Your task to perform on an android device: set default search engine in the chrome app Image 0: 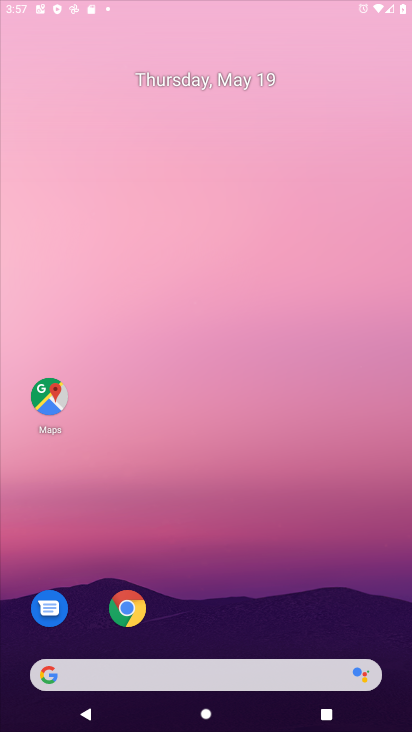
Step 0: drag from (258, 583) to (204, 234)
Your task to perform on an android device: set default search engine in the chrome app Image 1: 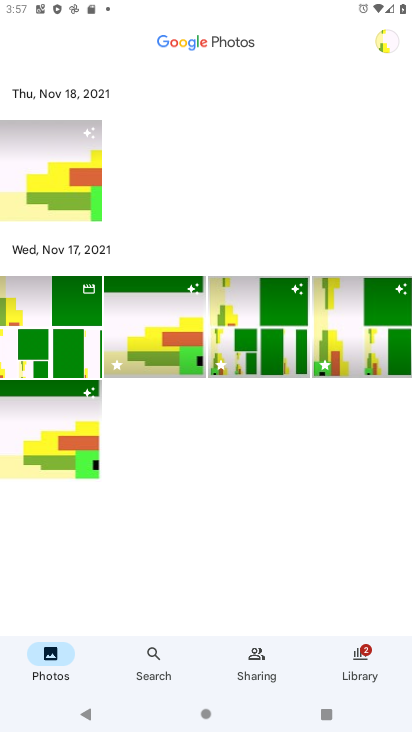
Step 1: press home button
Your task to perform on an android device: set default search engine in the chrome app Image 2: 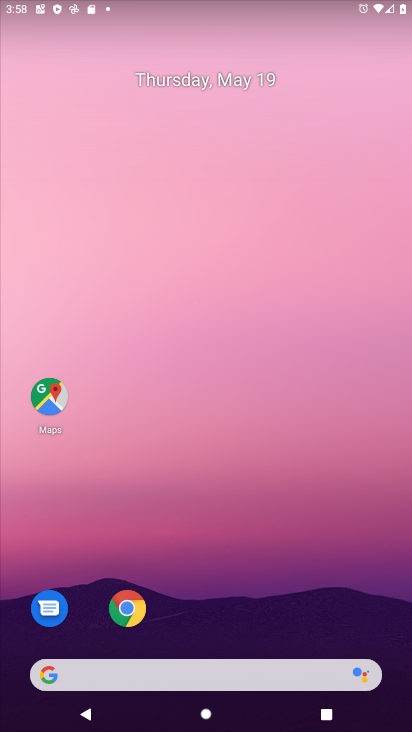
Step 2: drag from (192, 620) to (222, 180)
Your task to perform on an android device: set default search engine in the chrome app Image 3: 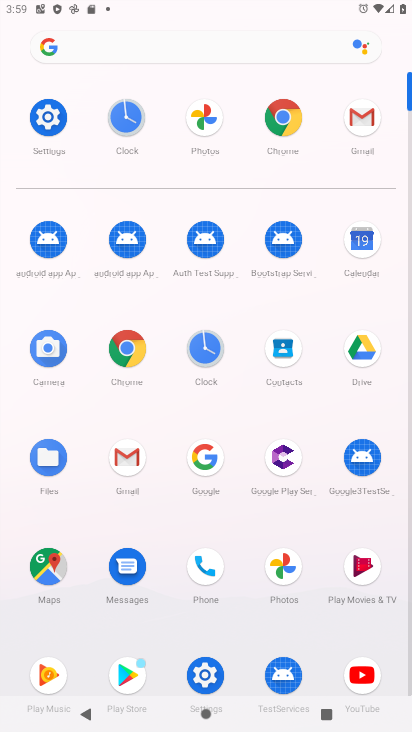
Step 3: click (272, 137)
Your task to perform on an android device: set default search engine in the chrome app Image 4: 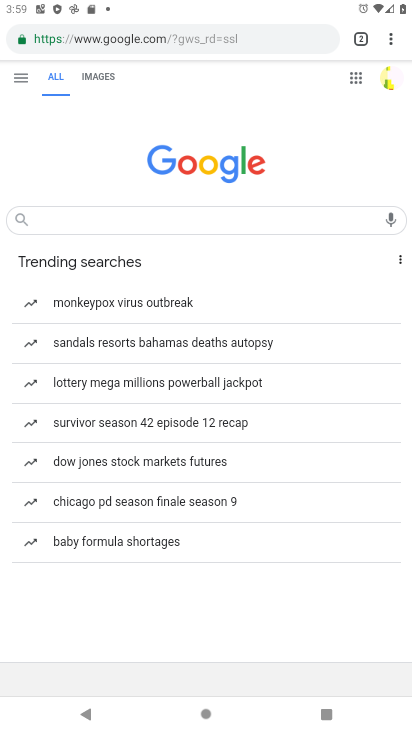
Step 4: click (375, 34)
Your task to perform on an android device: set default search engine in the chrome app Image 5: 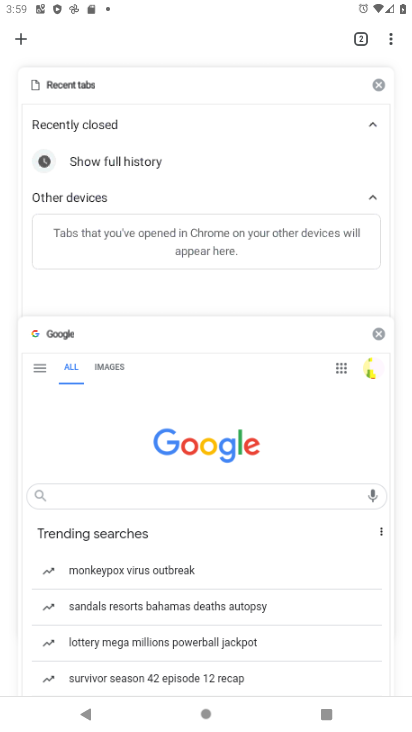
Step 5: click (385, 36)
Your task to perform on an android device: set default search engine in the chrome app Image 6: 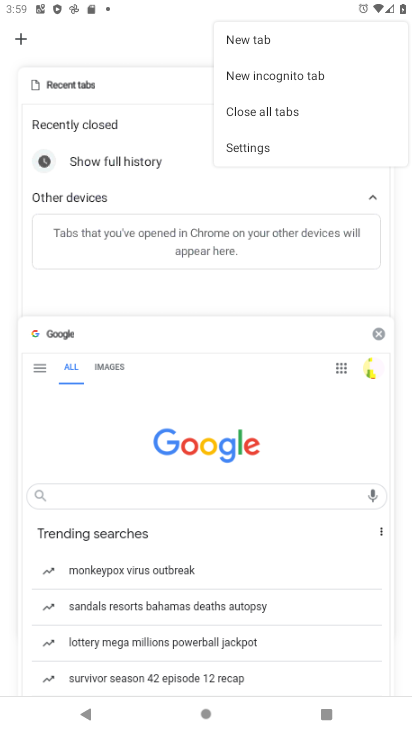
Step 6: click (271, 158)
Your task to perform on an android device: set default search engine in the chrome app Image 7: 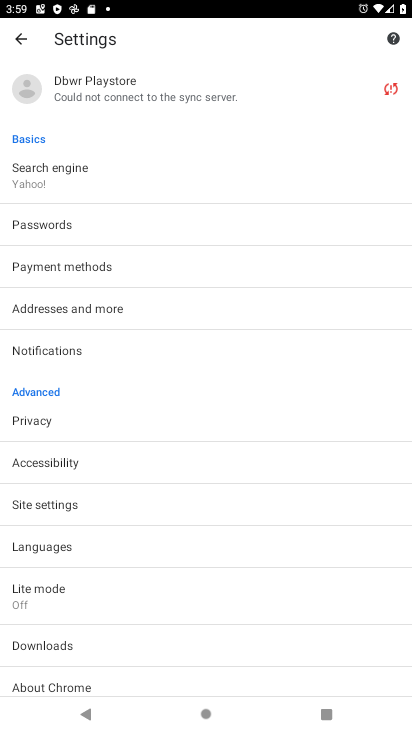
Step 7: click (105, 169)
Your task to perform on an android device: set default search engine in the chrome app Image 8: 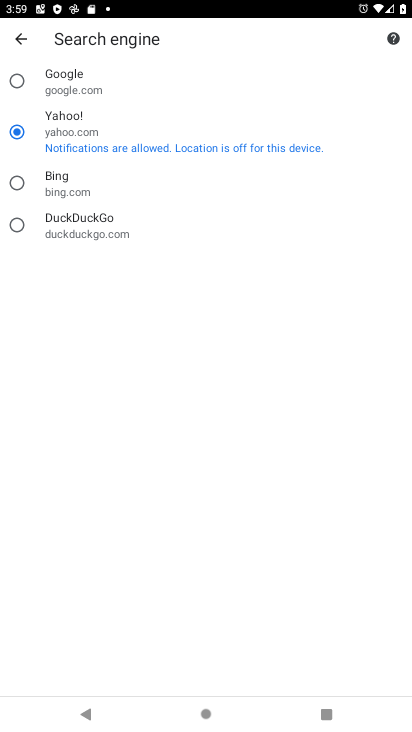
Step 8: click (114, 189)
Your task to perform on an android device: set default search engine in the chrome app Image 9: 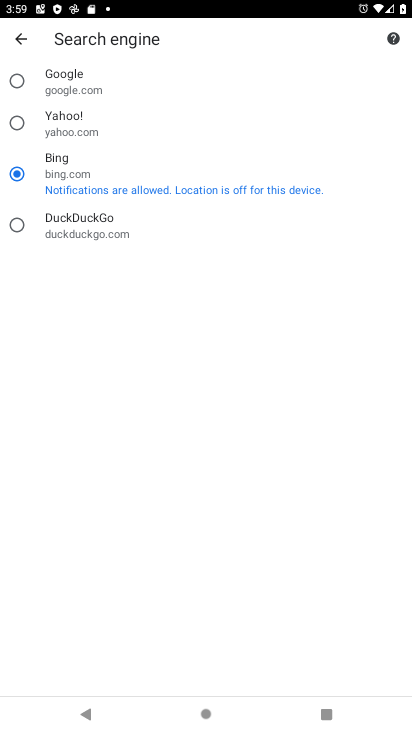
Step 9: task complete